Your task to perform on an android device: View the shopping cart on ebay.com. Add "macbook pro" to the cart on ebay.com, then select checkout. Image 0: 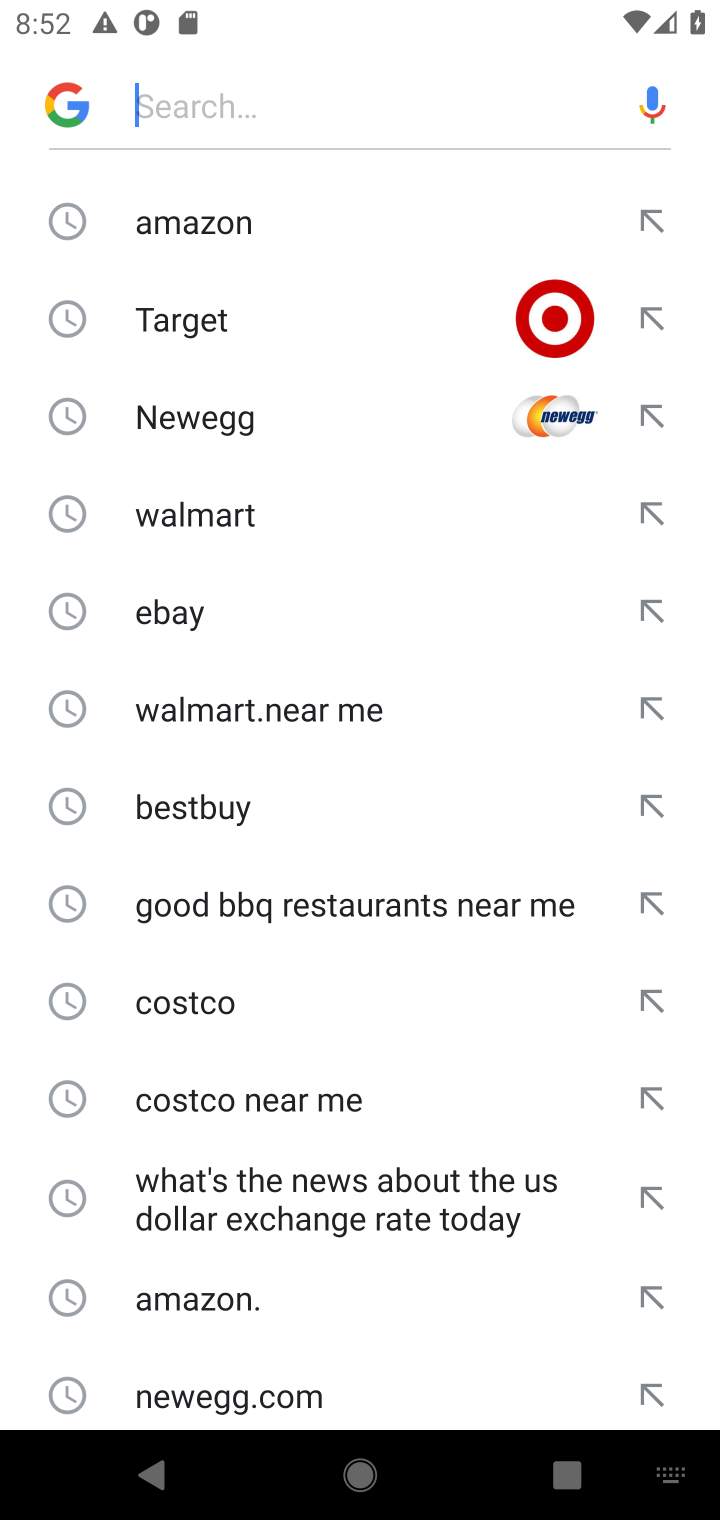
Step 0: click (209, 102)
Your task to perform on an android device: View the shopping cart on ebay.com. Add "macbook pro" to the cart on ebay.com, then select checkout. Image 1: 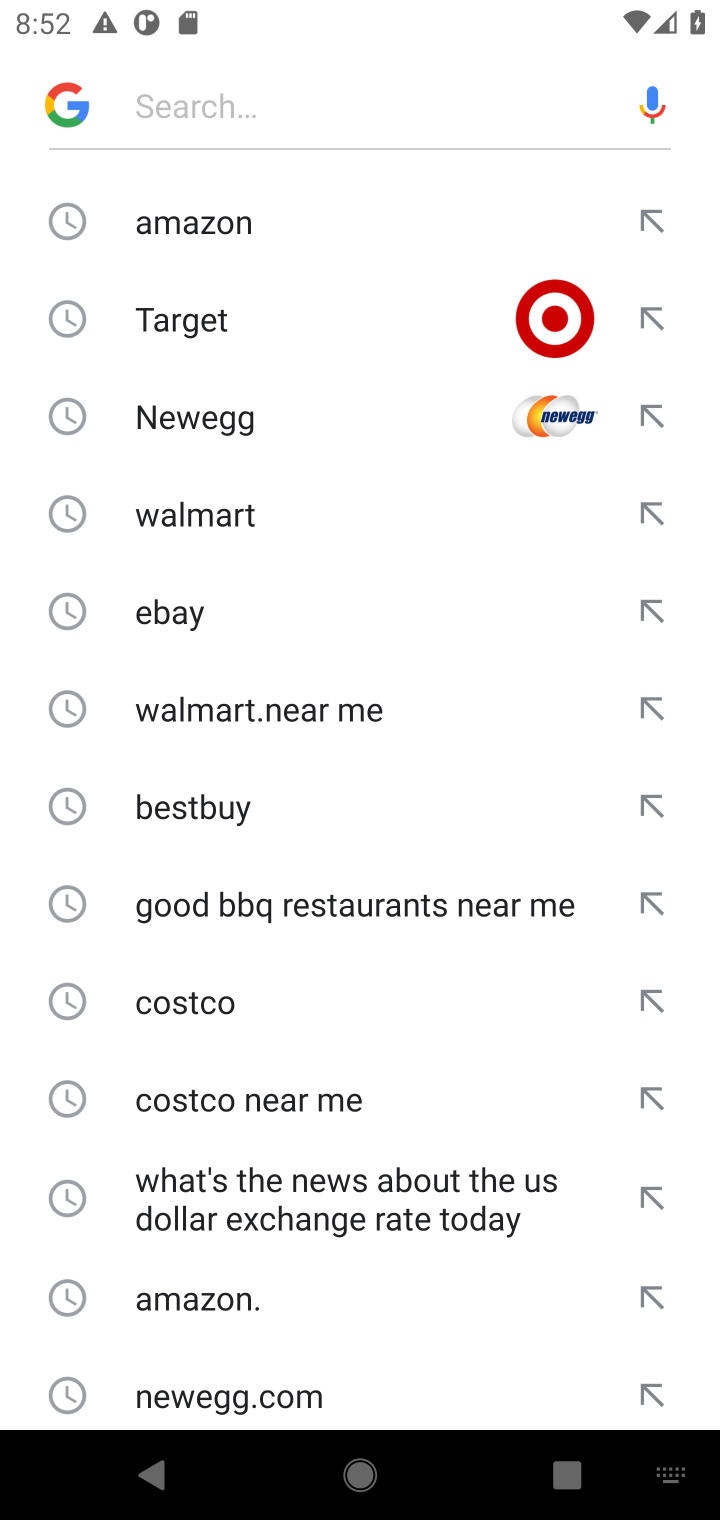
Step 1: type "ebay.com"
Your task to perform on an android device: View the shopping cart on ebay.com. Add "macbook pro" to the cart on ebay.com, then select checkout. Image 2: 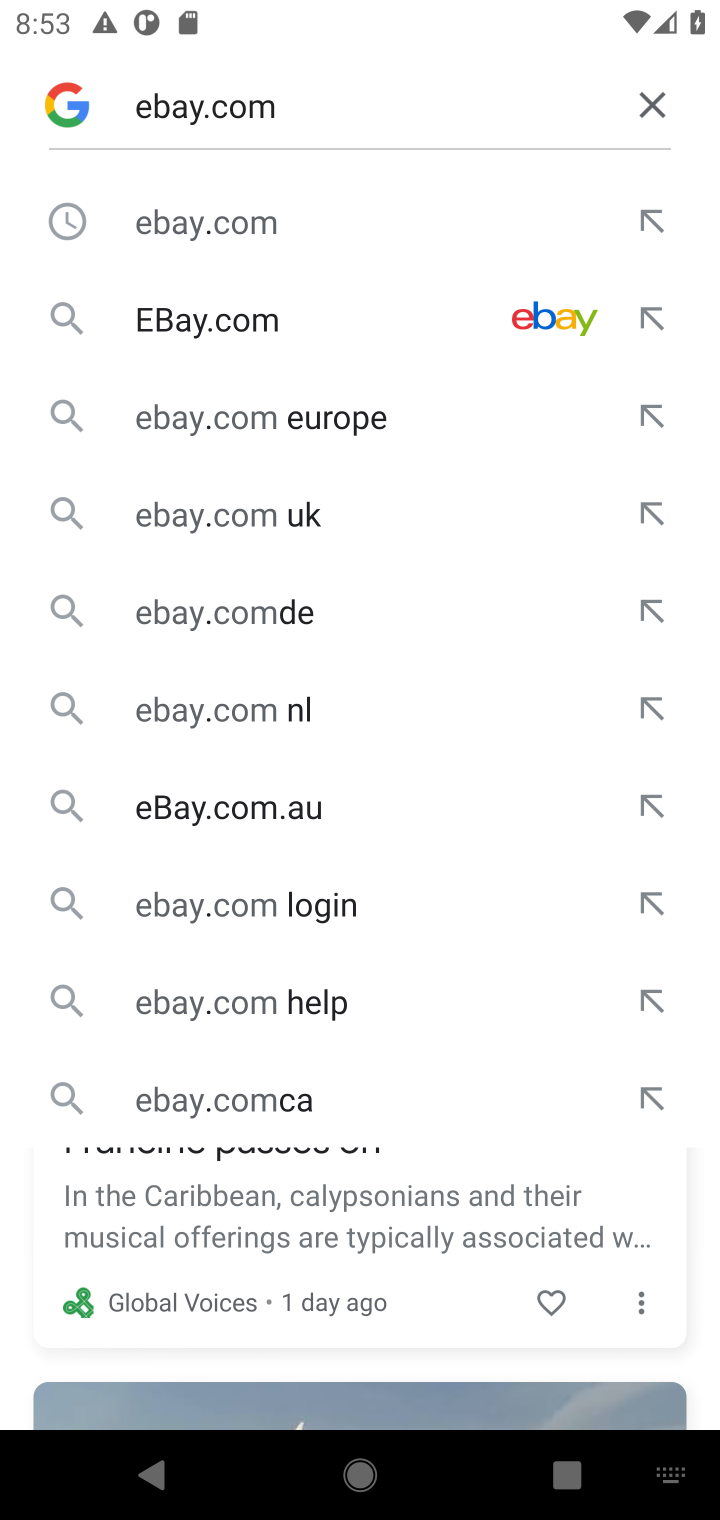
Step 2: click (193, 226)
Your task to perform on an android device: View the shopping cart on ebay.com. Add "macbook pro" to the cart on ebay.com, then select checkout. Image 3: 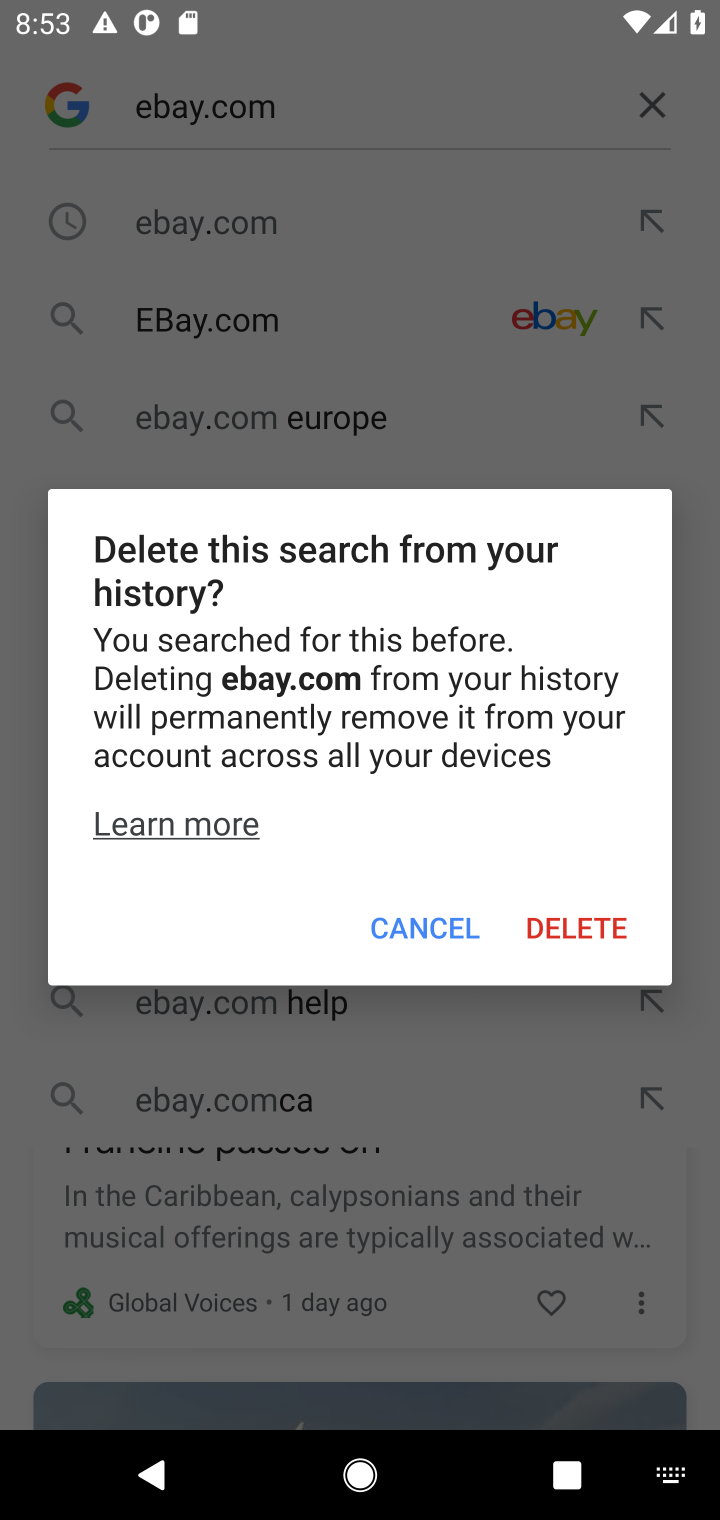
Step 3: click (415, 920)
Your task to perform on an android device: View the shopping cart on ebay.com. Add "macbook pro" to the cart on ebay.com, then select checkout. Image 4: 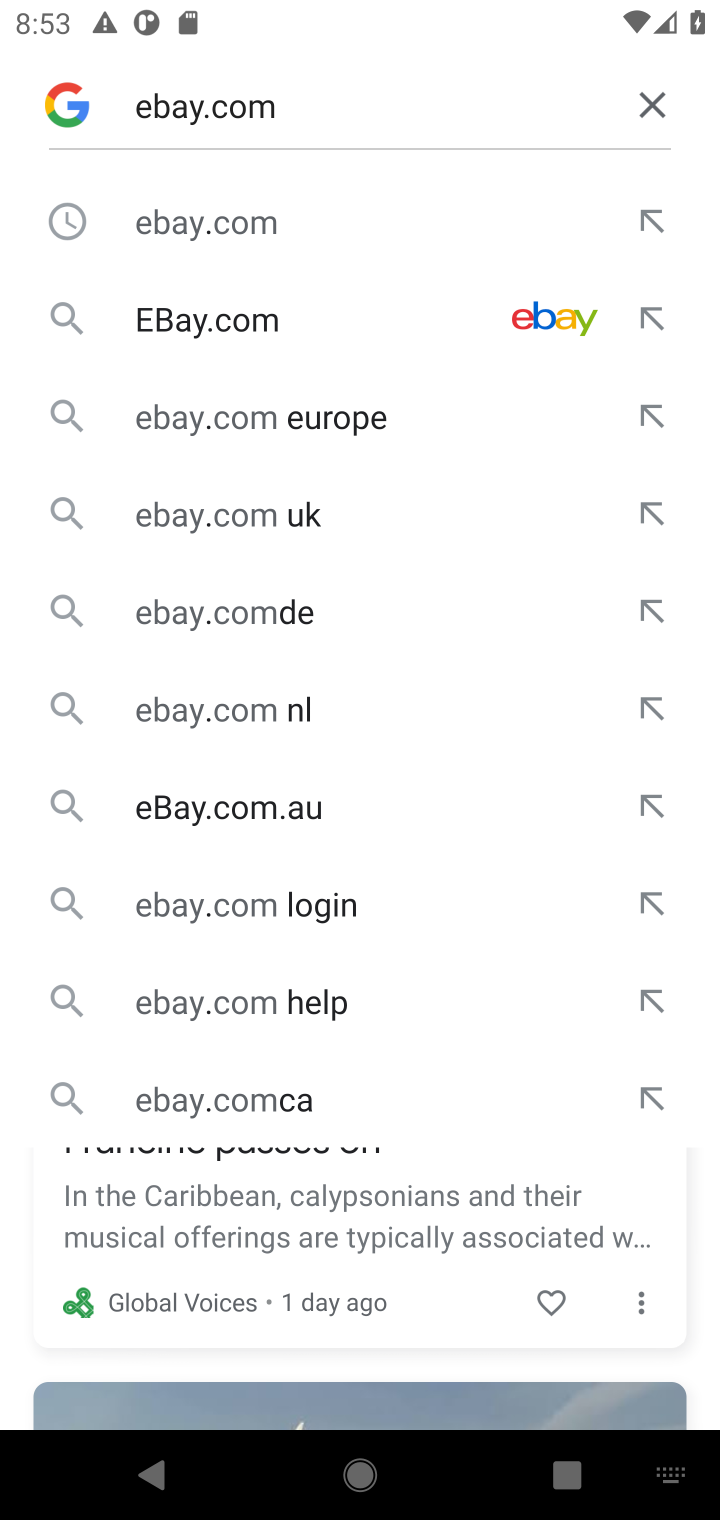
Step 4: click (189, 237)
Your task to perform on an android device: View the shopping cart on ebay.com. Add "macbook pro" to the cart on ebay.com, then select checkout. Image 5: 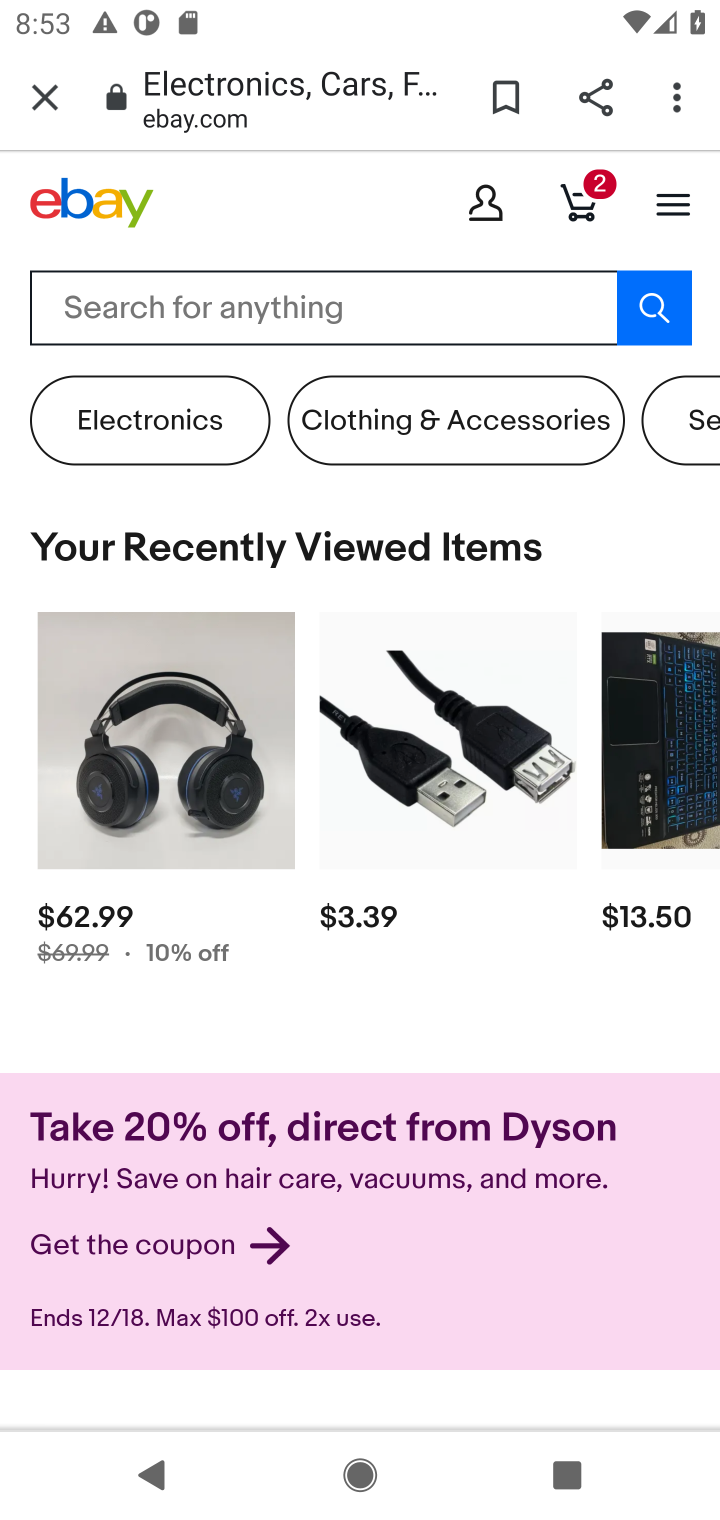
Step 5: click (589, 207)
Your task to perform on an android device: View the shopping cart on ebay.com. Add "macbook pro" to the cart on ebay.com, then select checkout. Image 6: 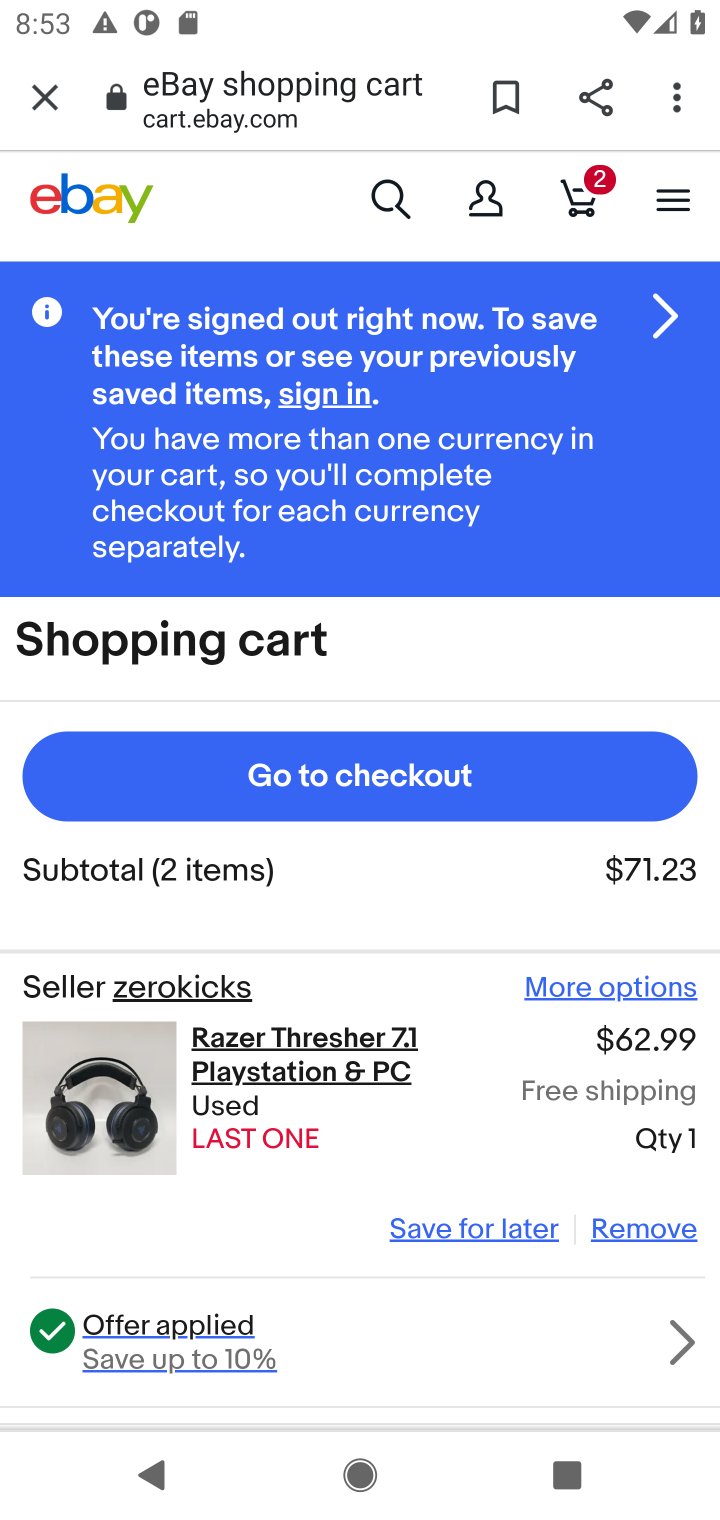
Step 6: click (395, 204)
Your task to perform on an android device: View the shopping cart on ebay.com. Add "macbook pro" to the cart on ebay.com, then select checkout. Image 7: 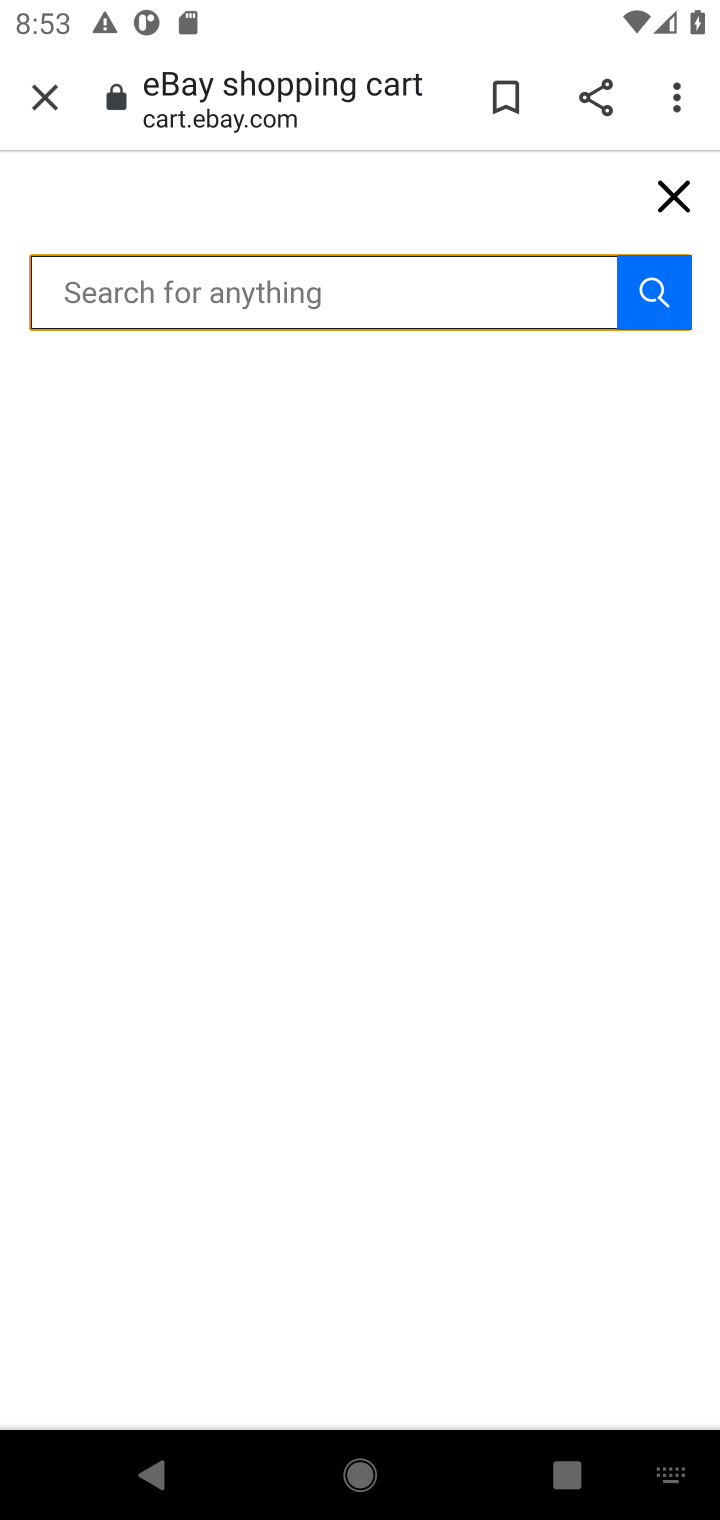
Step 7: type "macbook pro"
Your task to perform on an android device: View the shopping cart on ebay.com. Add "macbook pro" to the cart on ebay.com, then select checkout. Image 8: 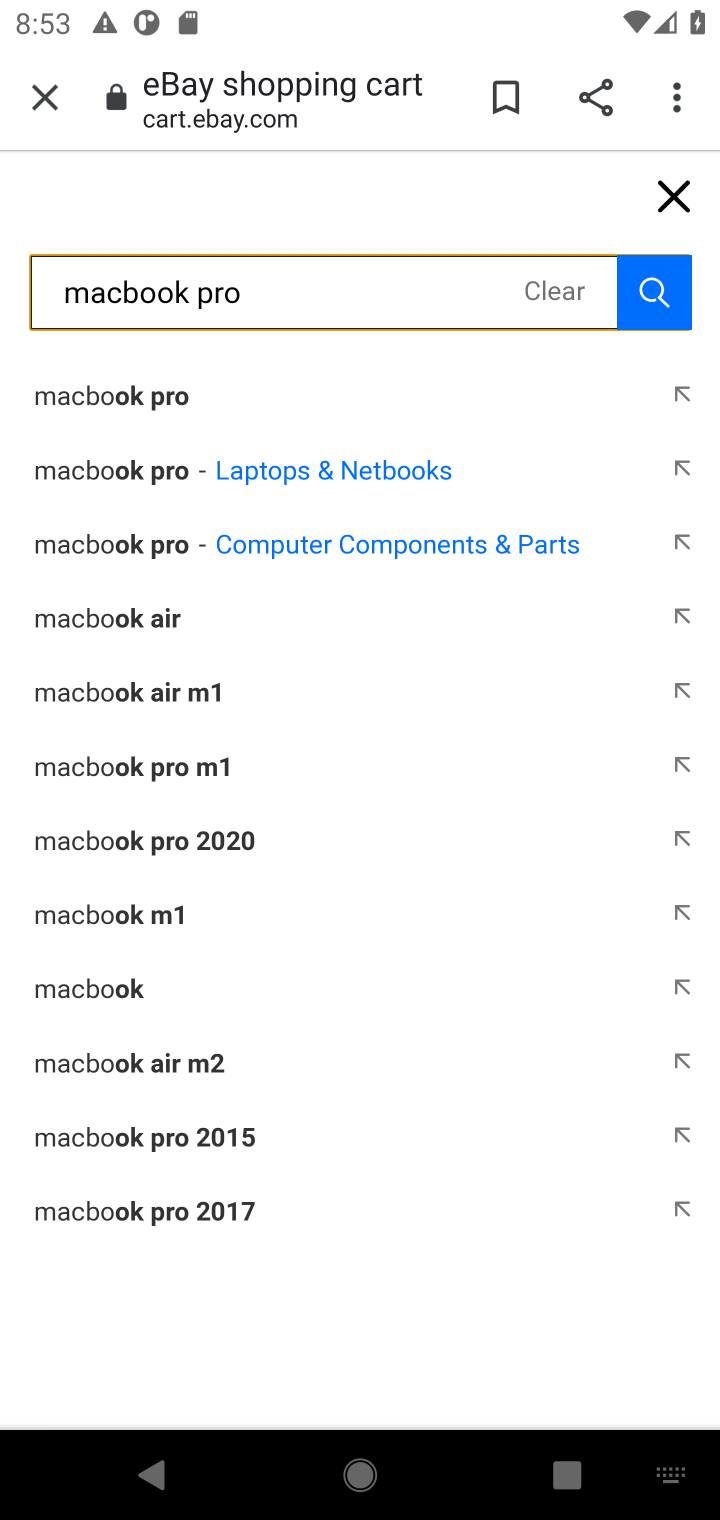
Step 8: click (119, 410)
Your task to perform on an android device: View the shopping cart on ebay.com. Add "macbook pro" to the cart on ebay.com, then select checkout. Image 9: 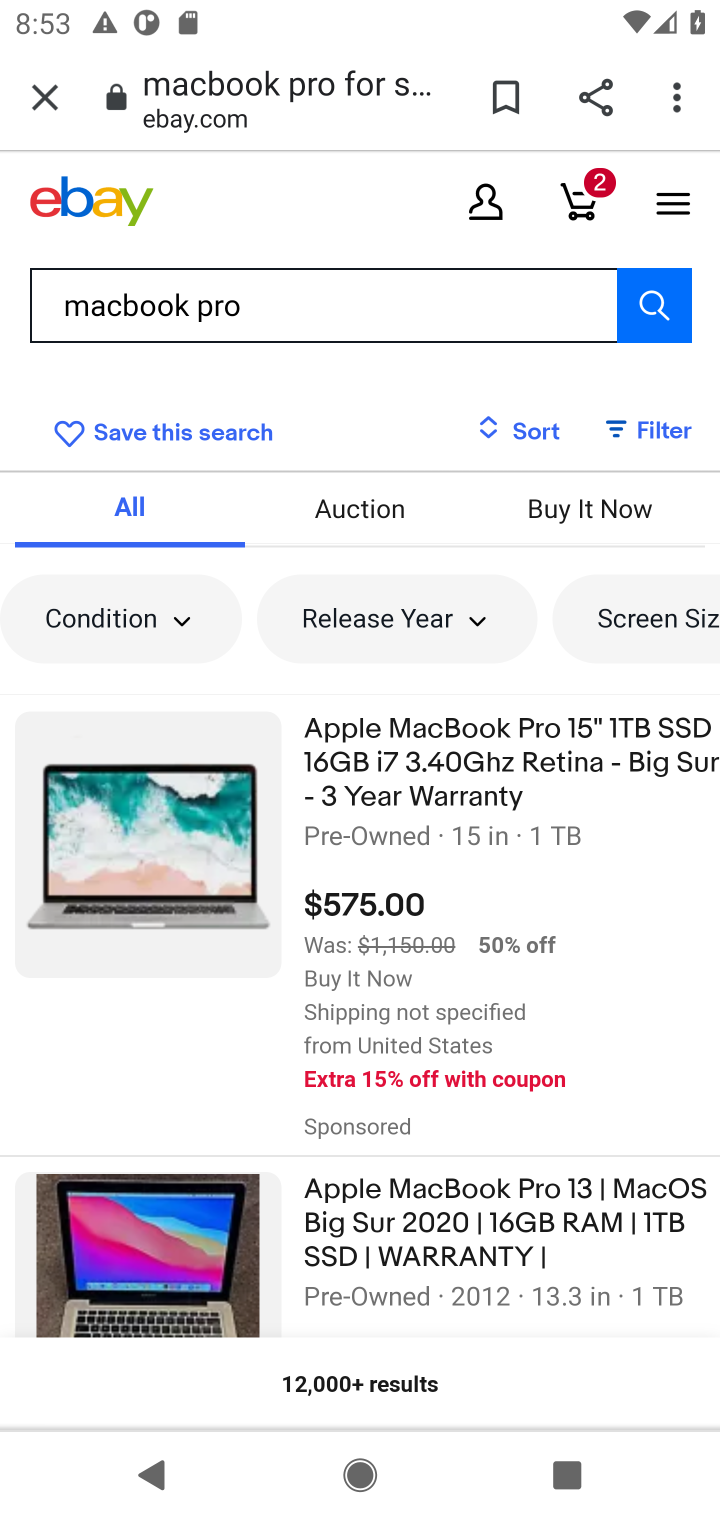
Step 9: click (398, 774)
Your task to perform on an android device: View the shopping cart on ebay.com. Add "macbook pro" to the cart on ebay.com, then select checkout. Image 10: 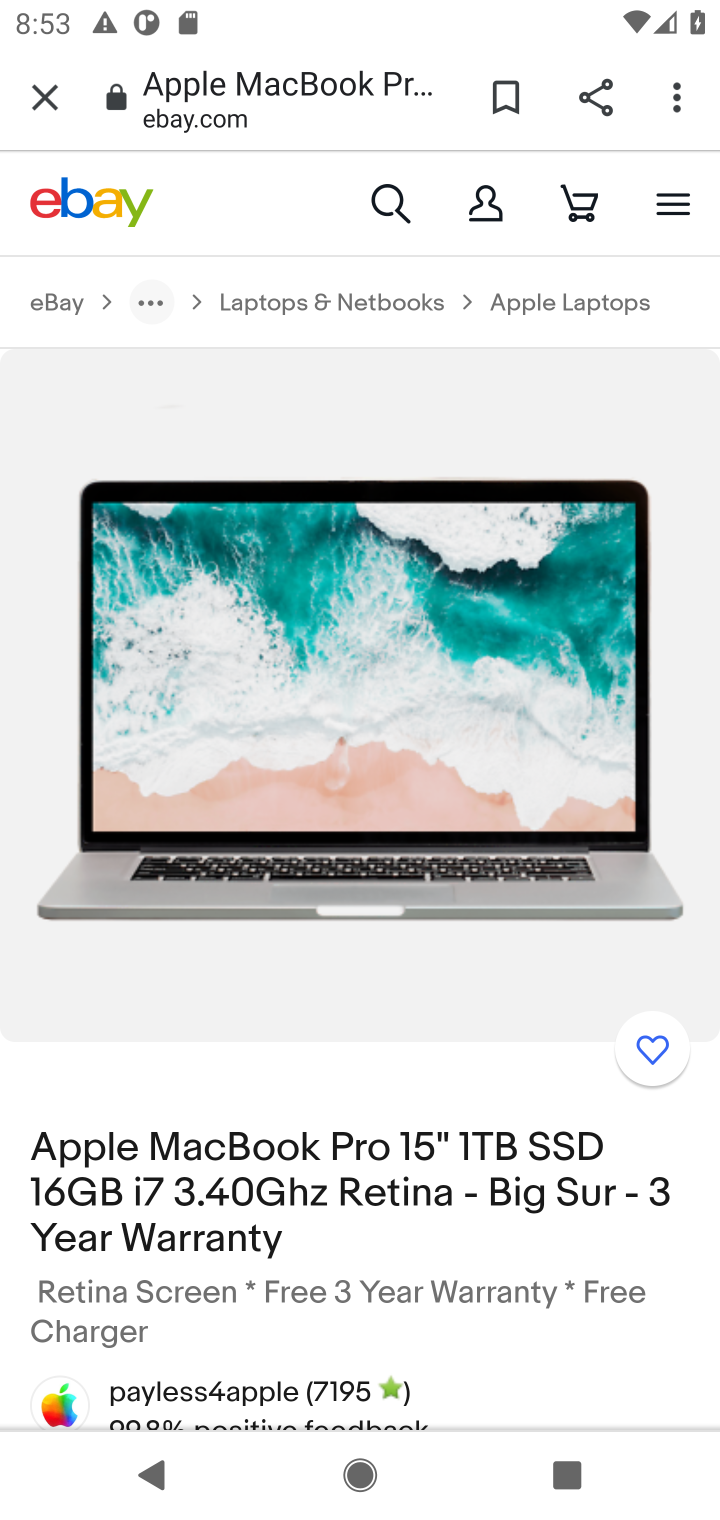
Step 10: drag from (296, 1088) to (322, 612)
Your task to perform on an android device: View the shopping cart on ebay.com. Add "macbook pro" to the cart on ebay.com, then select checkout. Image 11: 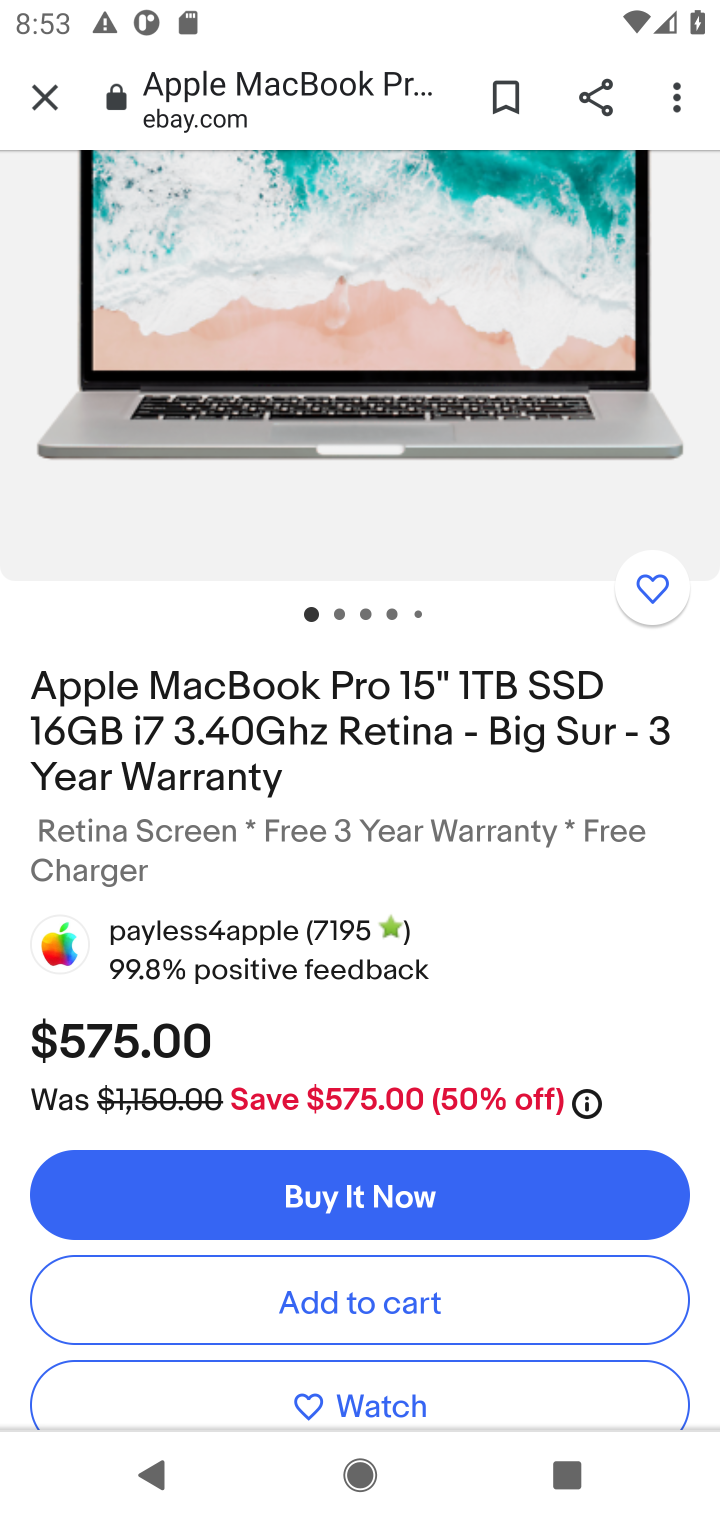
Step 11: click (340, 1293)
Your task to perform on an android device: View the shopping cart on ebay.com. Add "macbook pro" to the cart on ebay.com, then select checkout. Image 12: 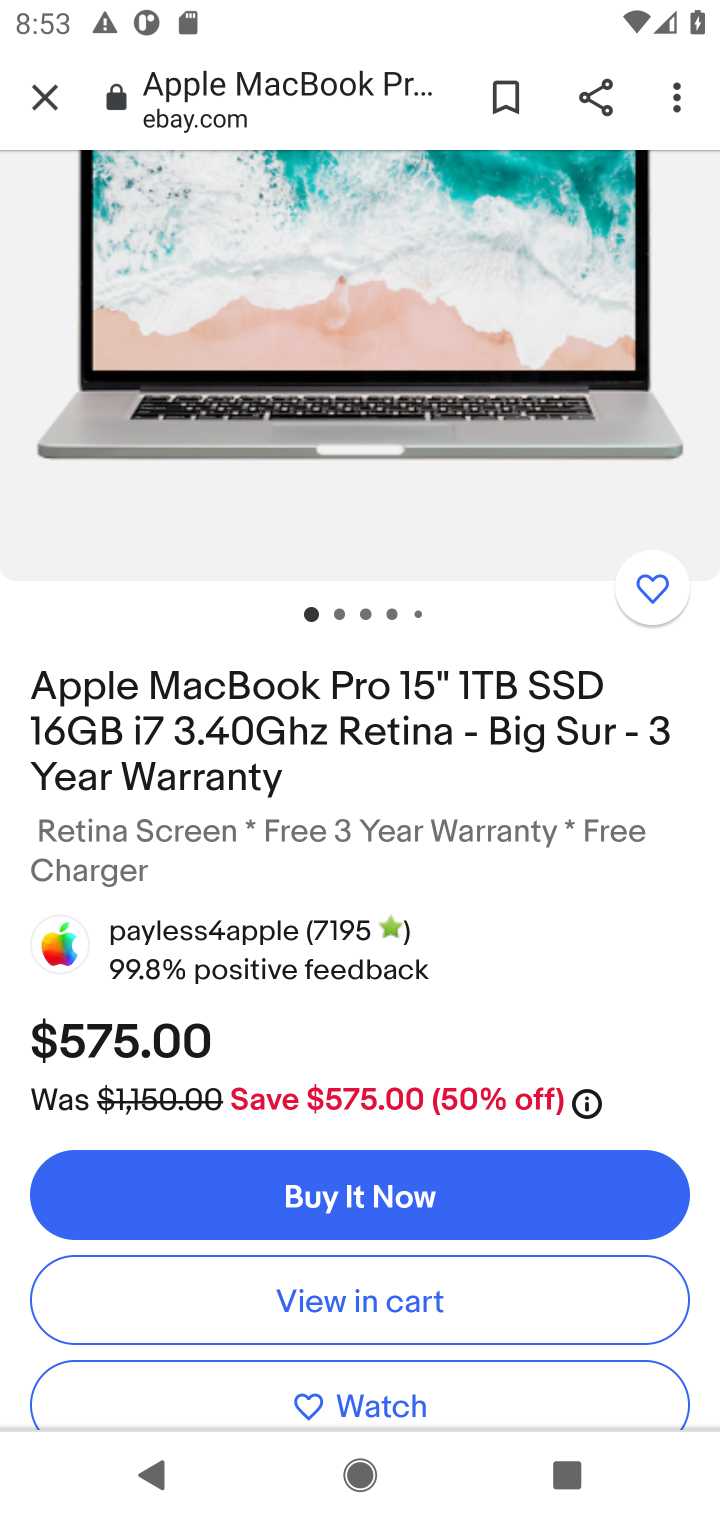
Step 12: click (340, 1293)
Your task to perform on an android device: View the shopping cart on ebay.com. Add "macbook pro" to the cart on ebay.com, then select checkout. Image 13: 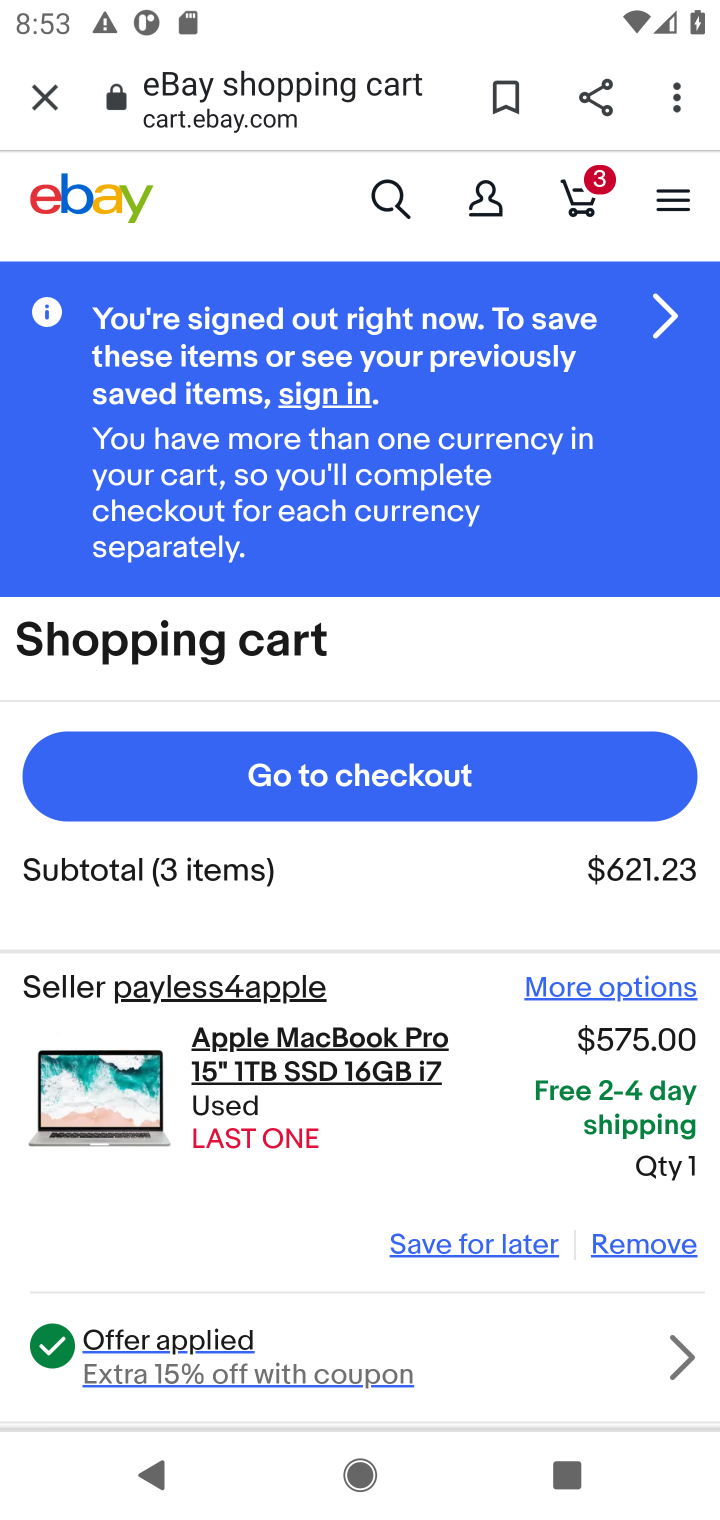
Step 13: click (317, 777)
Your task to perform on an android device: View the shopping cart on ebay.com. Add "macbook pro" to the cart on ebay.com, then select checkout. Image 14: 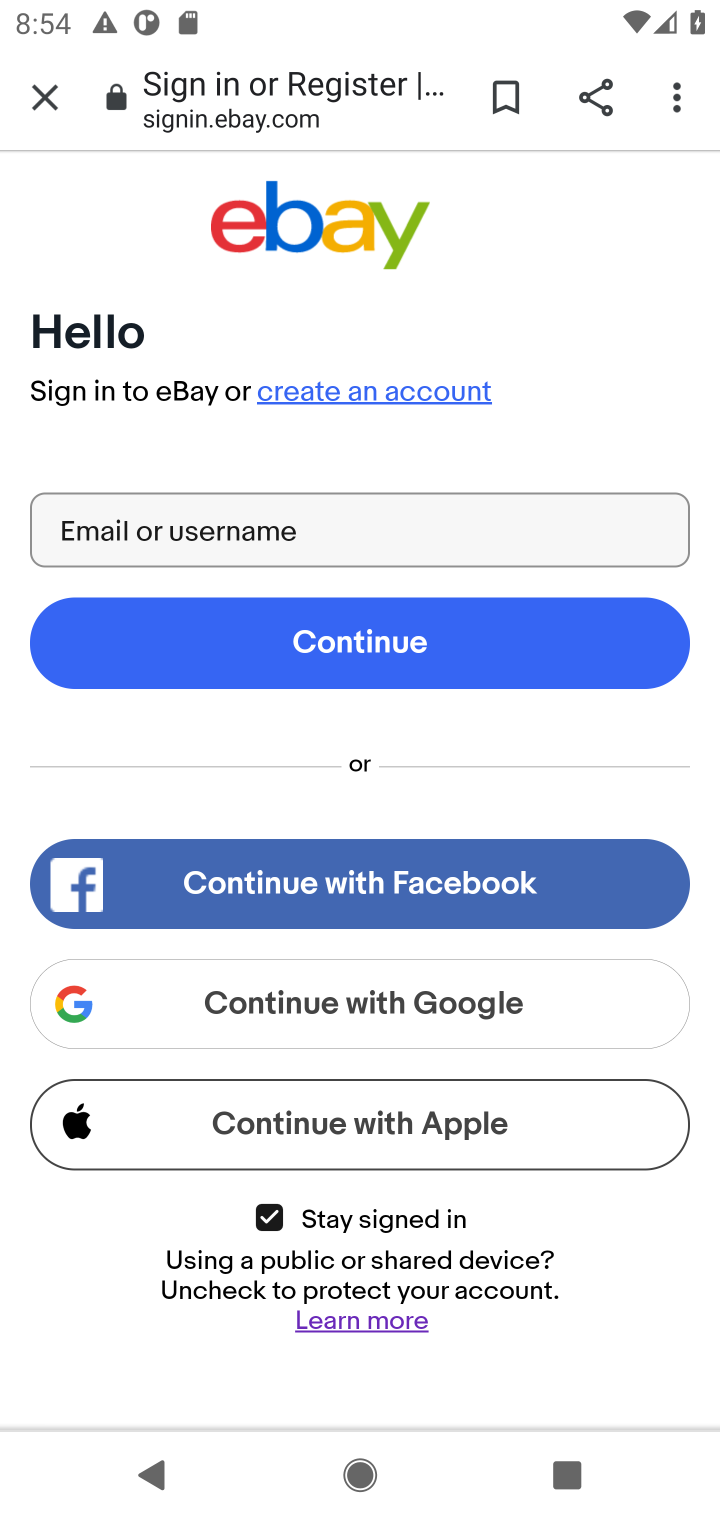
Step 14: task complete